Your task to perform on an android device: Open calendar and show me the first week of next month Image 0: 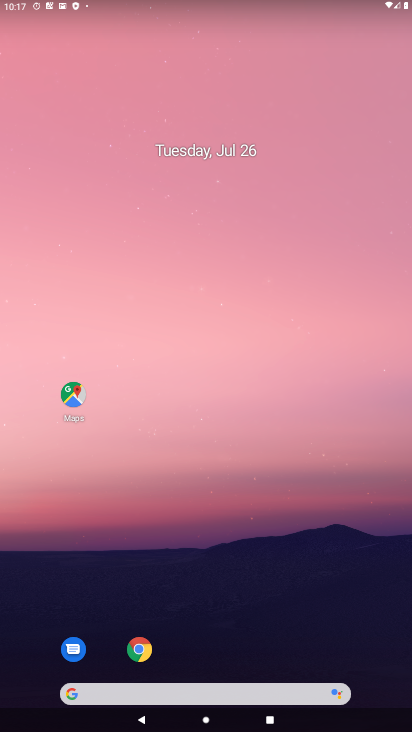
Step 0: drag from (202, 547) to (238, 10)
Your task to perform on an android device: Open calendar and show me the first week of next month Image 1: 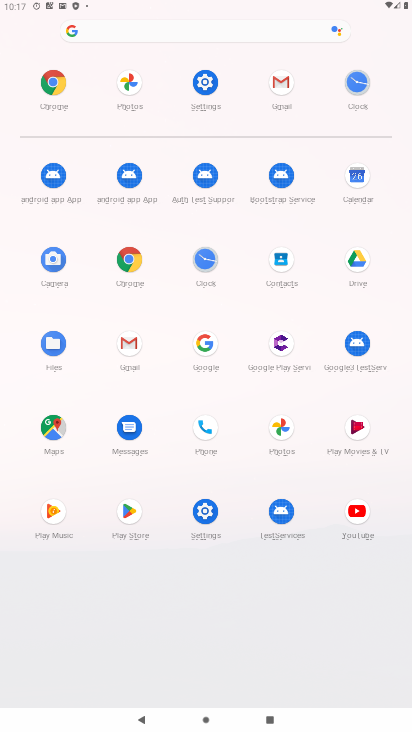
Step 1: click (358, 174)
Your task to perform on an android device: Open calendar and show me the first week of next month Image 2: 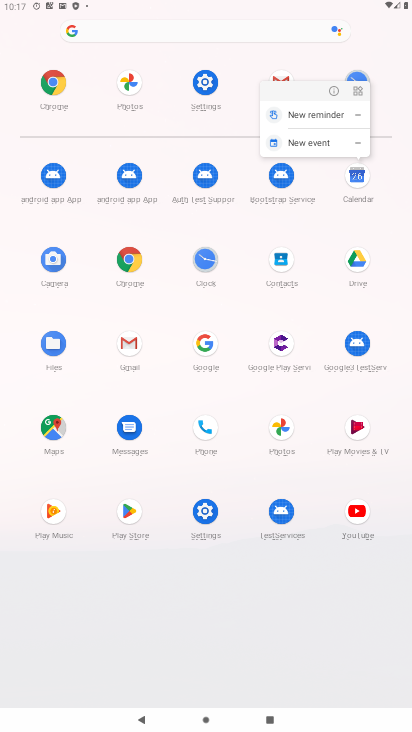
Step 2: click (325, 91)
Your task to perform on an android device: Open calendar and show me the first week of next month Image 3: 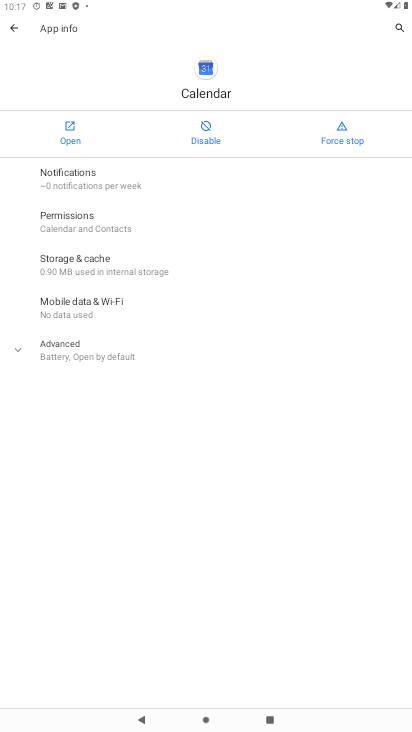
Step 3: click (73, 140)
Your task to perform on an android device: Open calendar and show me the first week of next month Image 4: 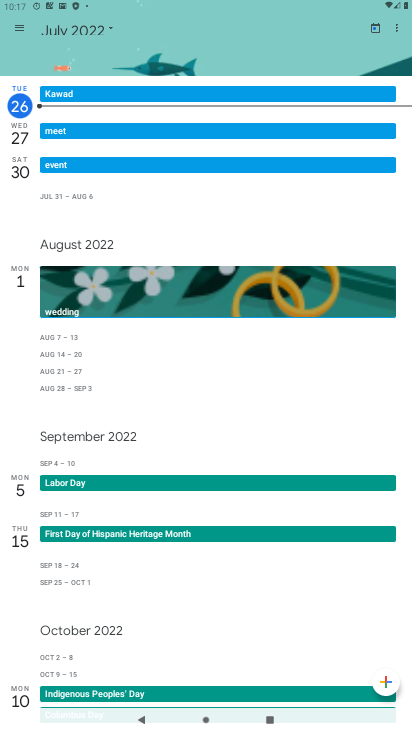
Step 4: click (77, 25)
Your task to perform on an android device: Open calendar and show me the first week of next month Image 5: 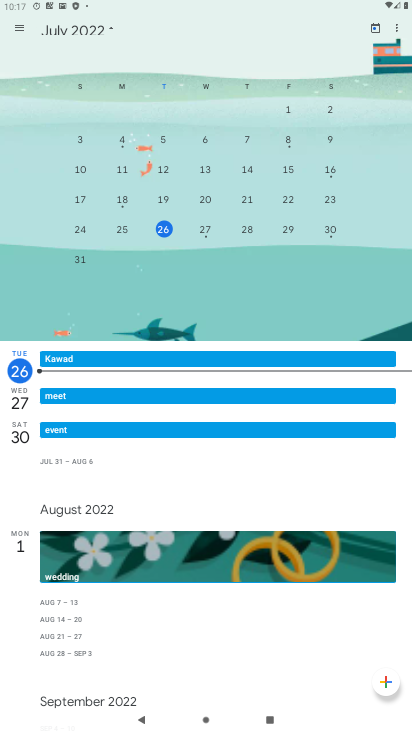
Step 5: drag from (302, 229) to (24, 220)
Your task to perform on an android device: Open calendar and show me the first week of next month Image 6: 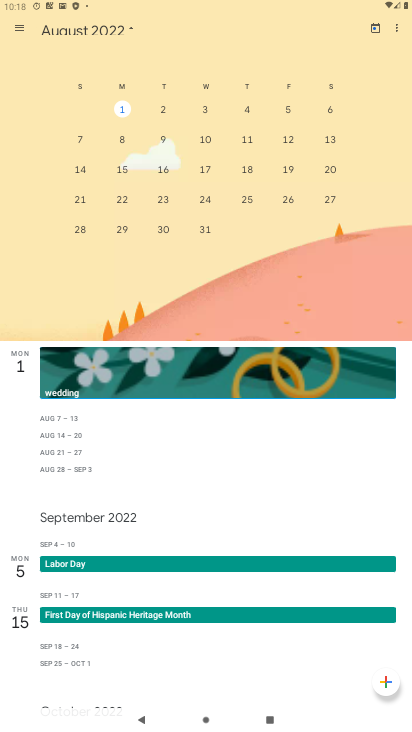
Step 6: click (250, 114)
Your task to perform on an android device: Open calendar and show me the first week of next month Image 7: 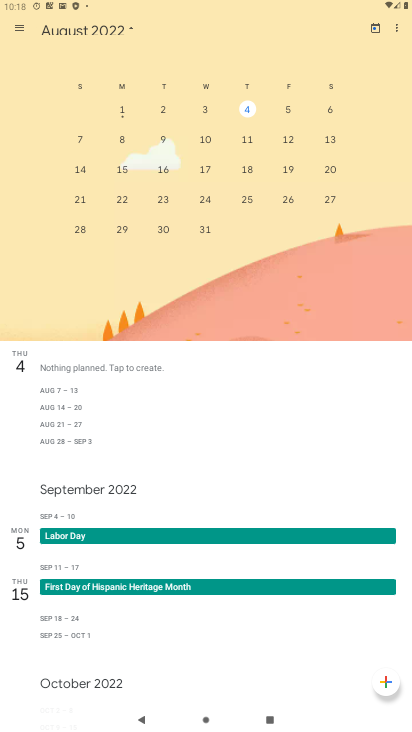
Step 7: task complete